Your task to perform on an android device: Open display settings Image 0: 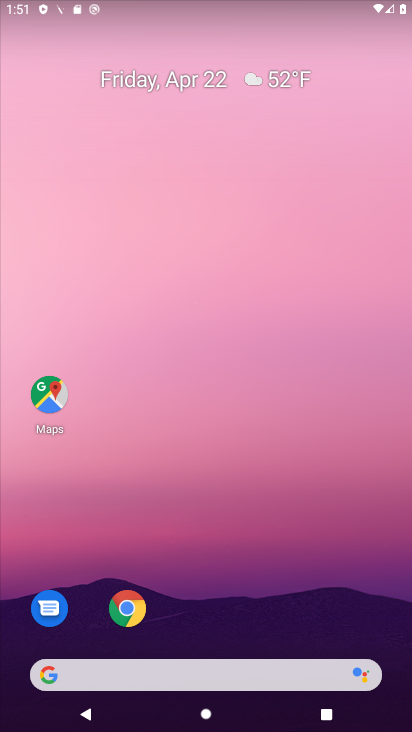
Step 0: drag from (302, 562) to (292, 25)
Your task to perform on an android device: Open display settings Image 1: 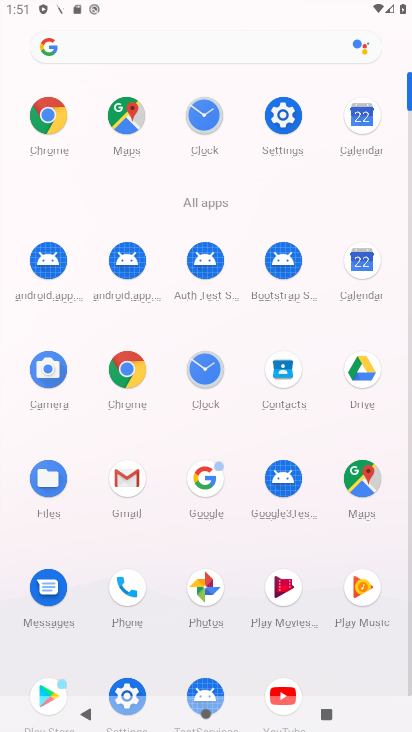
Step 1: click (289, 122)
Your task to perform on an android device: Open display settings Image 2: 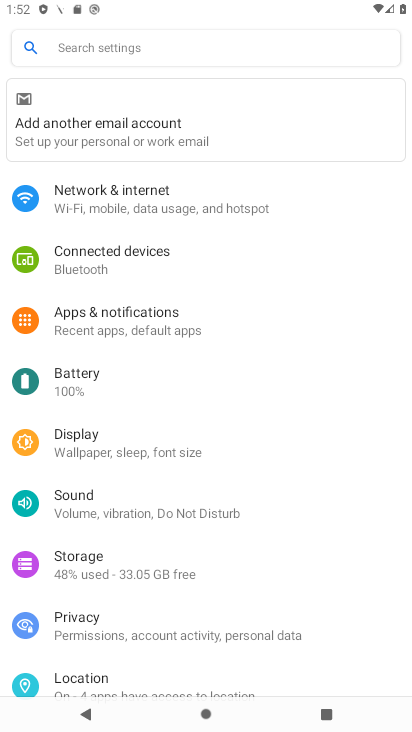
Step 2: click (94, 450)
Your task to perform on an android device: Open display settings Image 3: 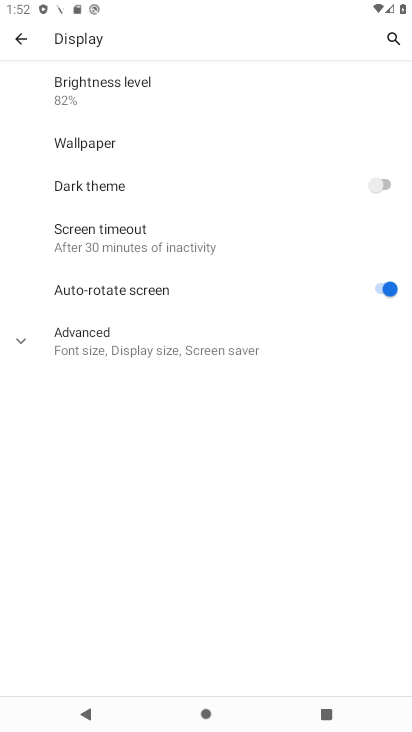
Step 3: task complete